Your task to perform on an android device: change the clock display to digital Image 0: 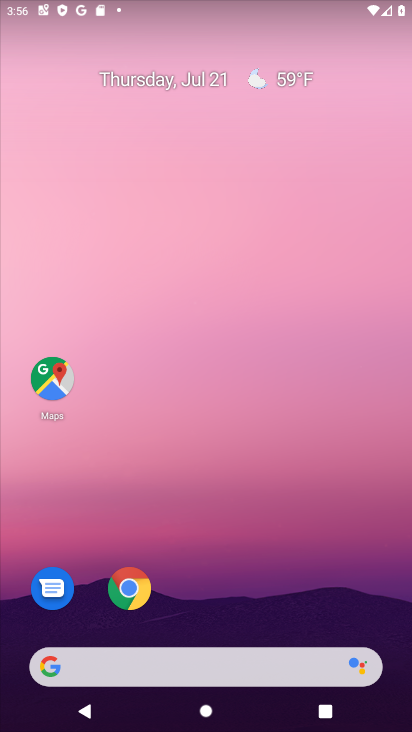
Step 0: drag from (240, 721) to (224, 208)
Your task to perform on an android device: change the clock display to digital Image 1: 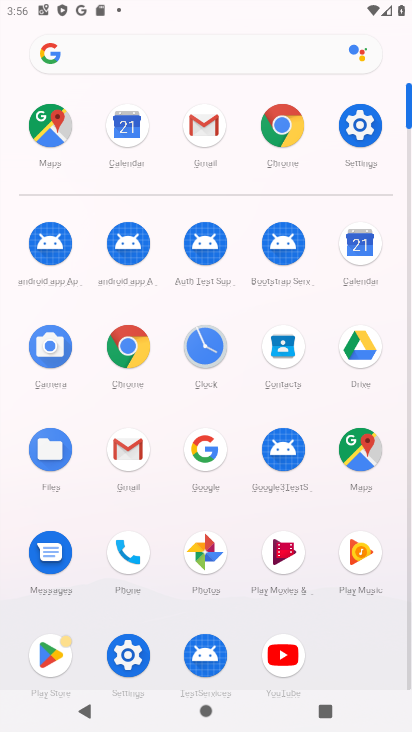
Step 1: click (199, 353)
Your task to perform on an android device: change the clock display to digital Image 2: 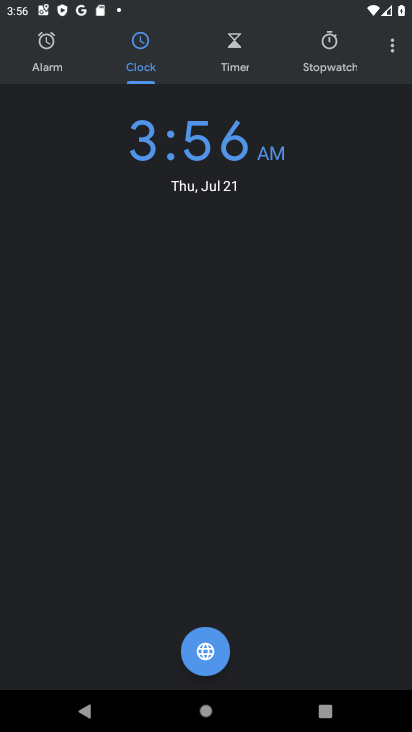
Step 2: click (394, 51)
Your task to perform on an android device: change the clock display to digital Image 3: 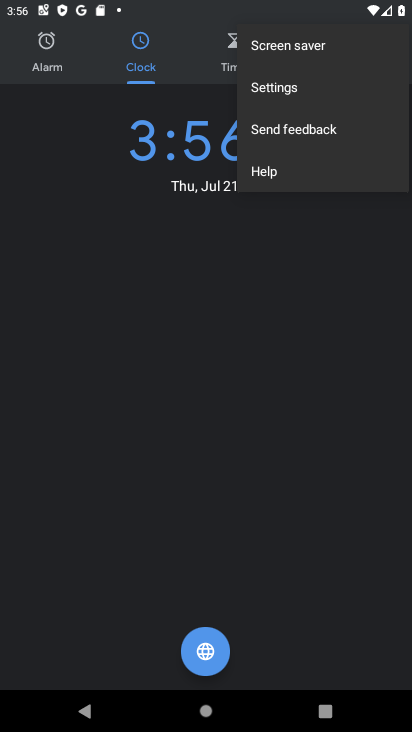
Step 3: click (275, 87)
Your task to perform on an android device: change the clock display to digital Image 4: 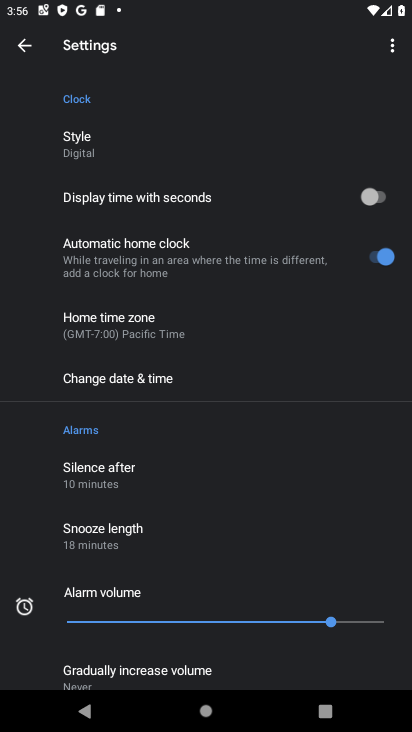
Step 4: task complete